Your task to perform on an android device: Set the phone to "Do not disturb". Image 0: 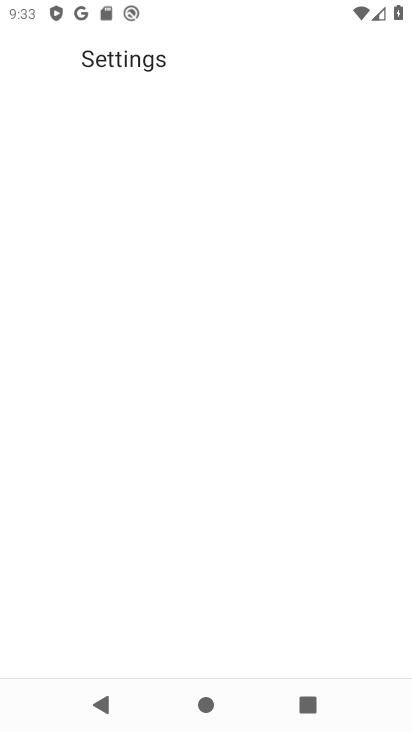
Step 0: click (214, 666)
Your task to perform on an android device: Set the phone to "Do not disturb". Image 1: 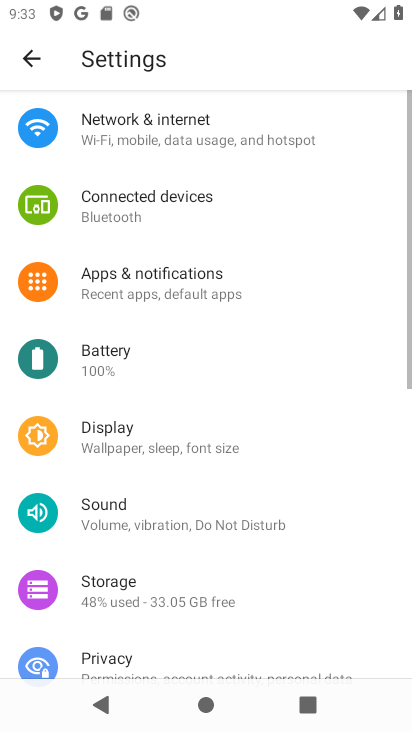
Step 1: press home button
Your task to perform on an android device: Set the phone to "Do not disturb". Image 2: 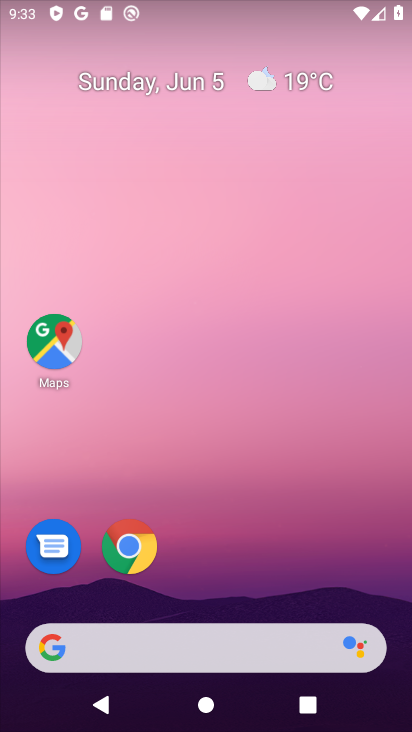
Step 2: drag from (216, 10) to (234, 389)
Your task to perform on an android device: Set the phone to "Do not disturb". Image 3: 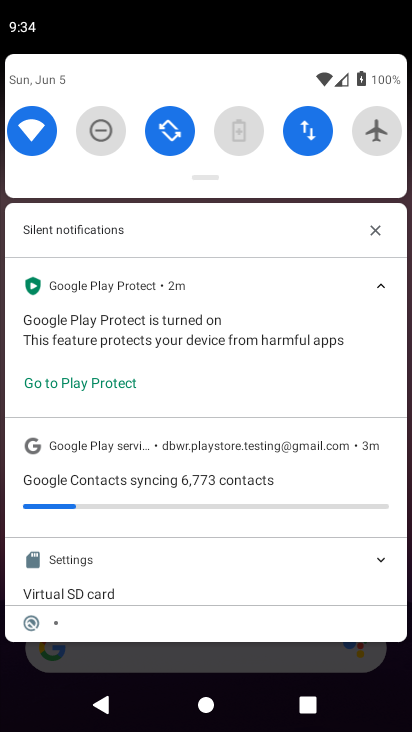
Step 3: click (90, 121)
Your task to perform on an android device: Set the phone to "Do not disturb". Image 4: 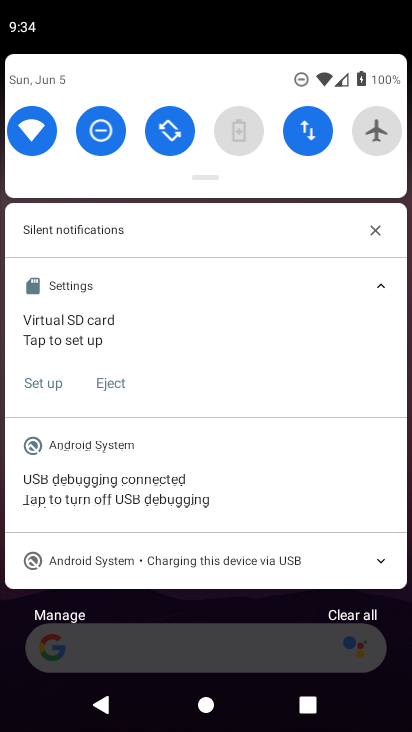
Step 4: task complete